Your task to perform on an android device: Toggle the flashlight Image 0: 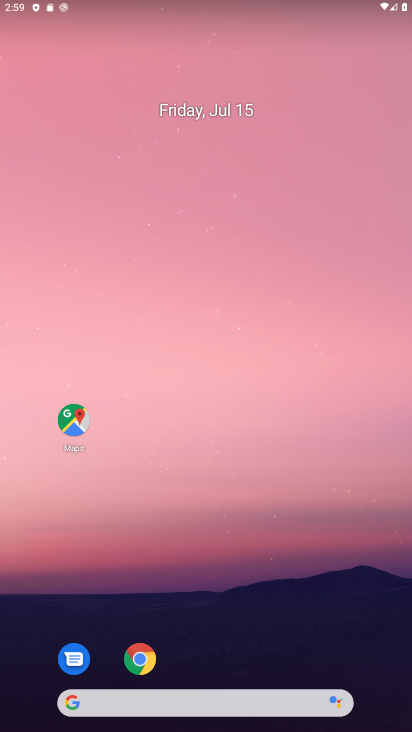
Step 0: drag from (201, 625) to (296, 139)
Your task to perform on an android device: Toggle the flashlight Image 1: 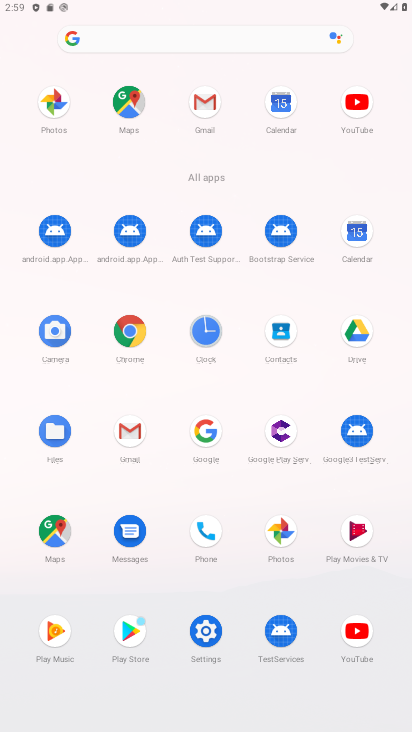
Step 1: drag from (228, 624) to (253, 172)
Your task to perform on an android device: Toggle the flashlight Image 2: 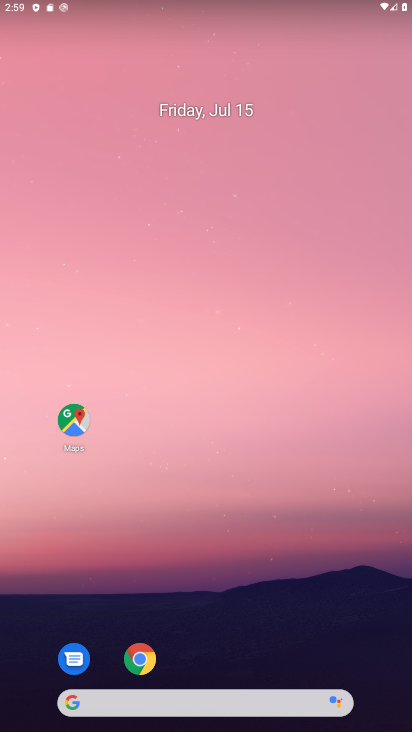
Step 2: click (209, 630)
Your task to perform on an android device: Toggle the flashlight Image 3: 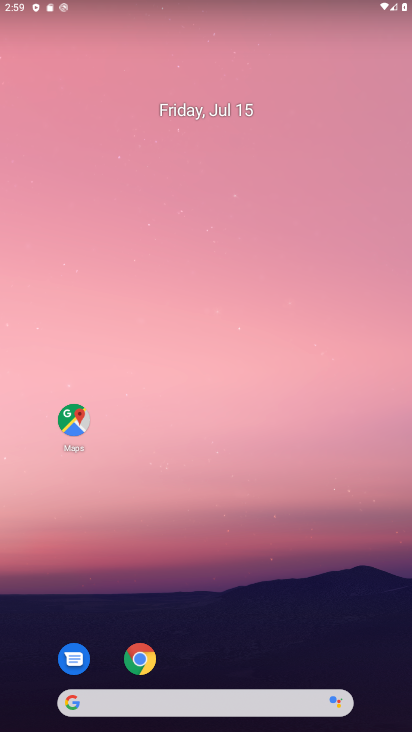
Step 3: click (232, 351)
Your task to perform on an android device: Toggle the flashlight Image 4: 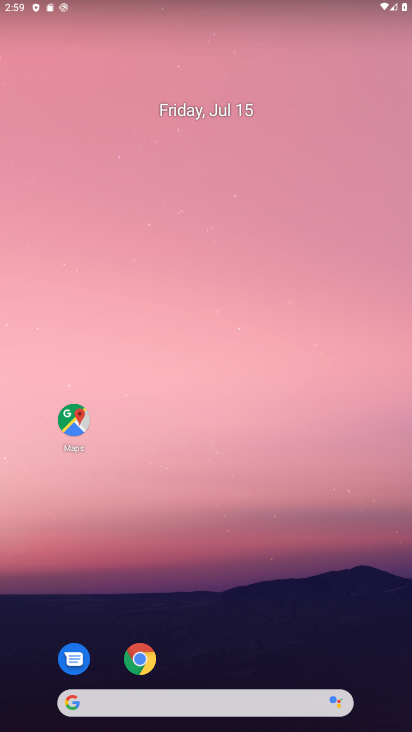
Step 4: click (299, 114)
Your task to perform on an android device: Toggle the flashlight Image 5: 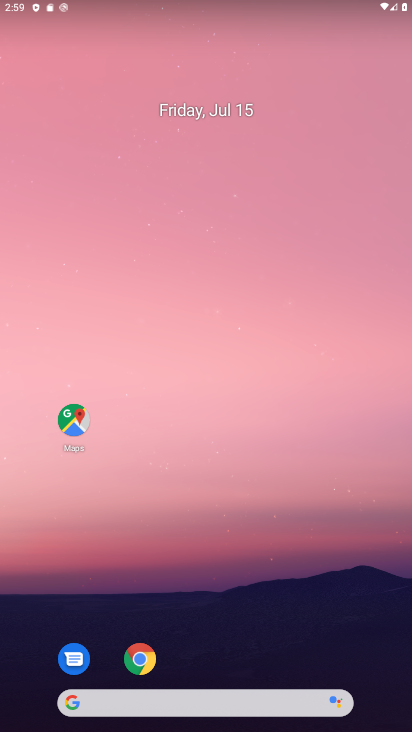
Step 5: click (232, 254)
Your task to perform on an android device: Toggle the flashlight Image 6: 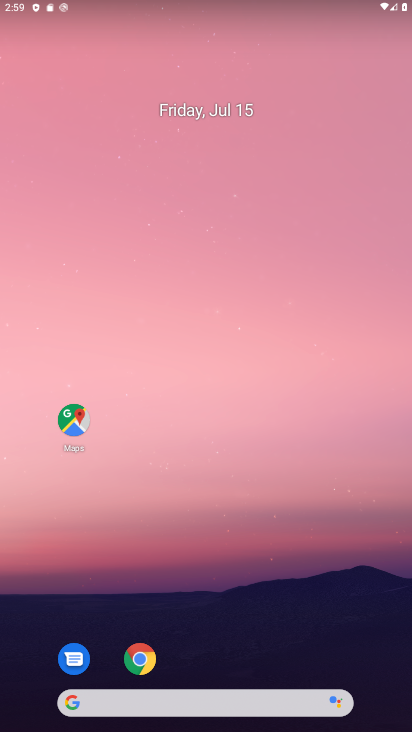
Step 6: drag from (222, 649) to (287, 295)
Your task to perform on an android device: Toggle the flashlight Image 7: 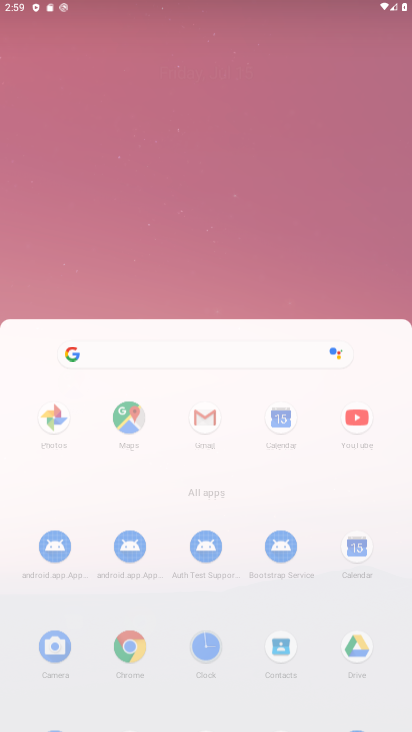
Step 7: click (245, 317)
Your task to perform on an android device: Toggle the flashlight Image 8: 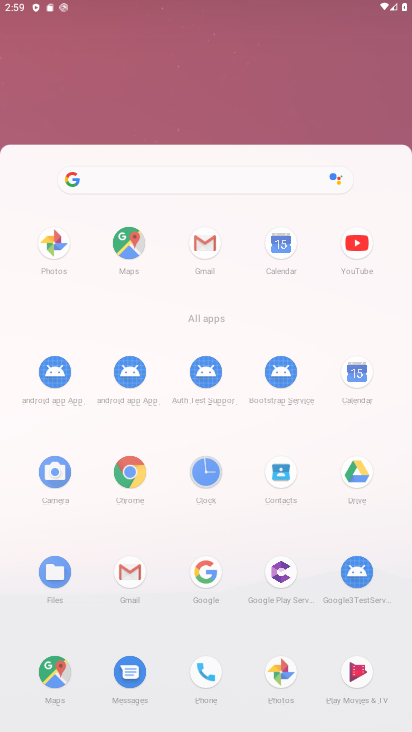
Step 8: press home button
Your task to perform on an android device: Toggle the flashlight Image 9: 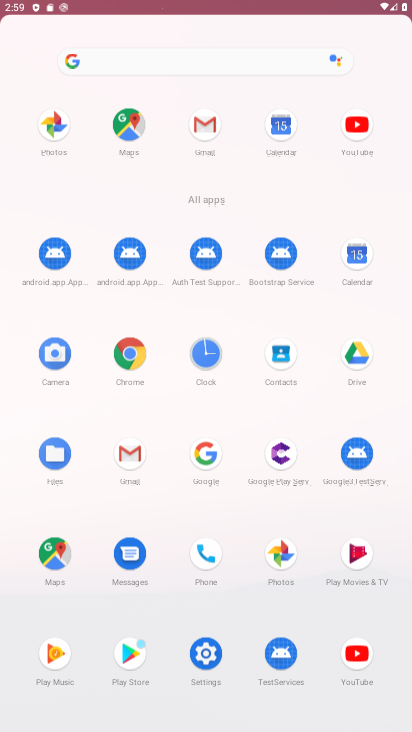
Step 9: click (359, 214)
Your task to perform on an android device: Toggle the flashlight Image 10: 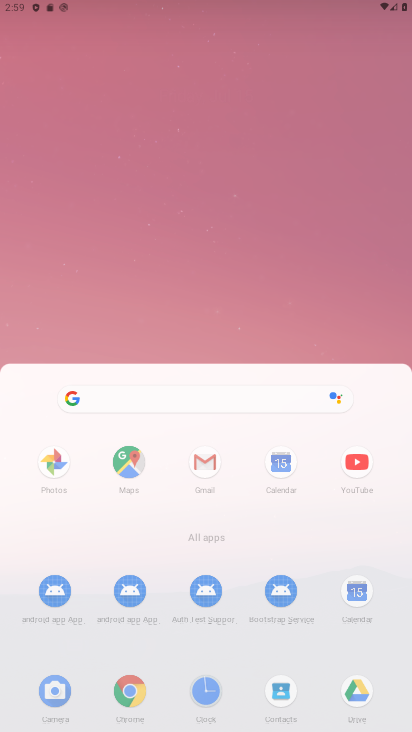
Step 10: drag from (231, 234) to (269, 178)
Your task to perform on an android device: Toggle the flashlight Image 11: 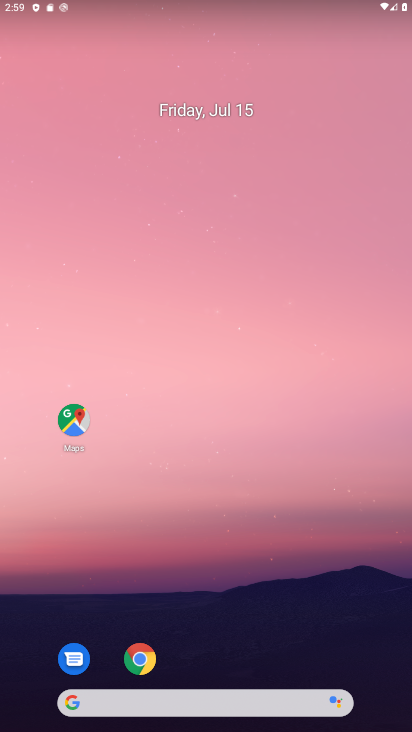
Step 11: drag from (188, 534) to (257, 144)
Your task to perform on an android device: Toggle the flashlight Image 12: 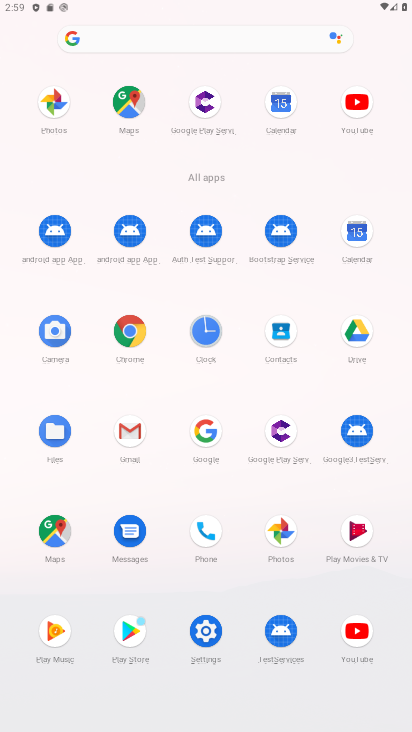
Step 12: click (187, 39)
Your task to perform on an android device: Toggle the flashlight Image 13: 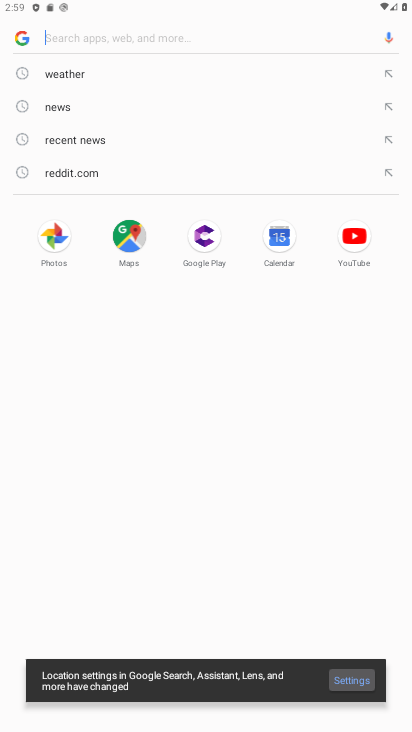
Step 13: press home button
Your task to perform on an android device: Toggle the flashlight Image 14: 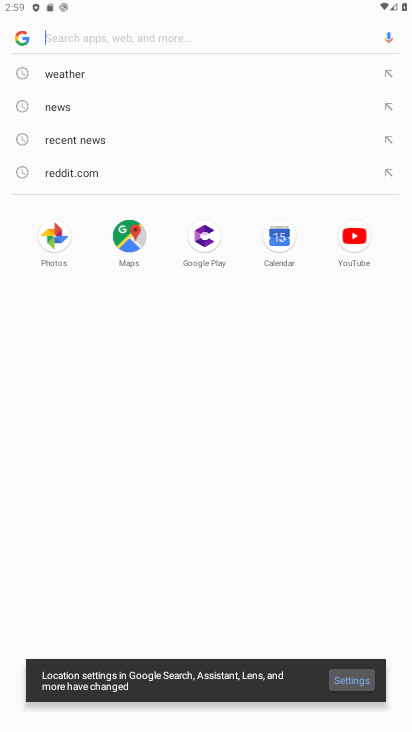
Step 14: press home button
Your task to perform on an android device: Toggle the flashlight Image 15: 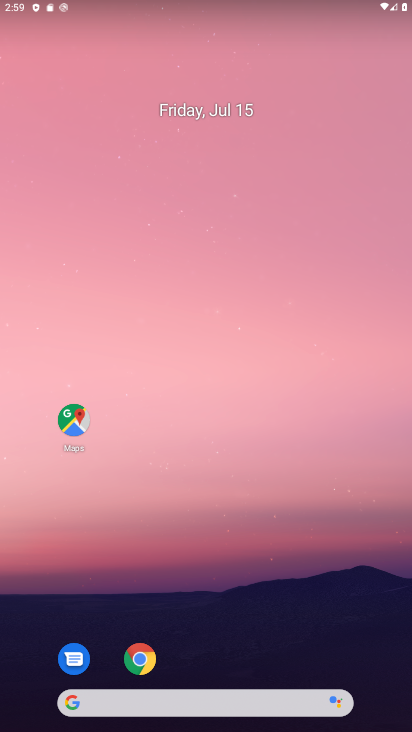
Step 15: drag from (254, 617) to (287, 178)
Your task to perform on an android device: Toggle the flashlight Image 16: 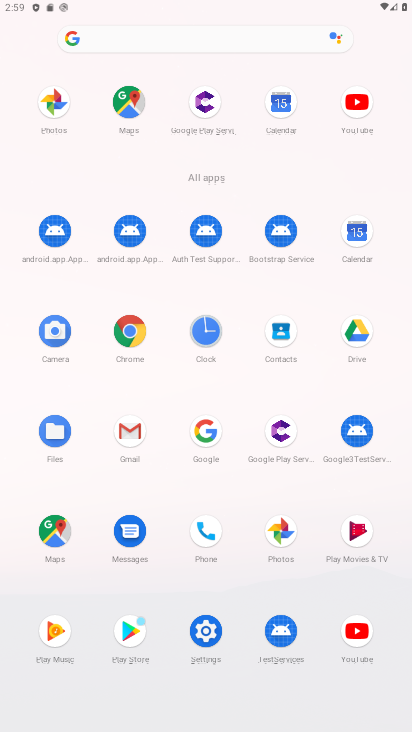
Step 16: click (207, 621)
Your task to perform on an android device: Toggle the flashlight Image 17: 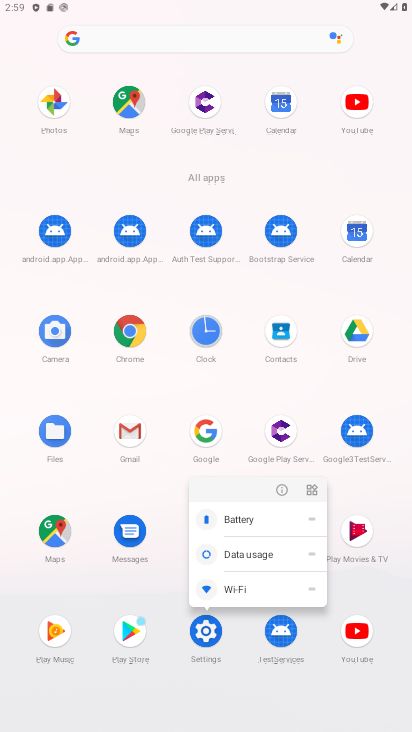
Step 17: click (277, 489)
Your task to perform on an android device: Toggle the flashlight Image 18: 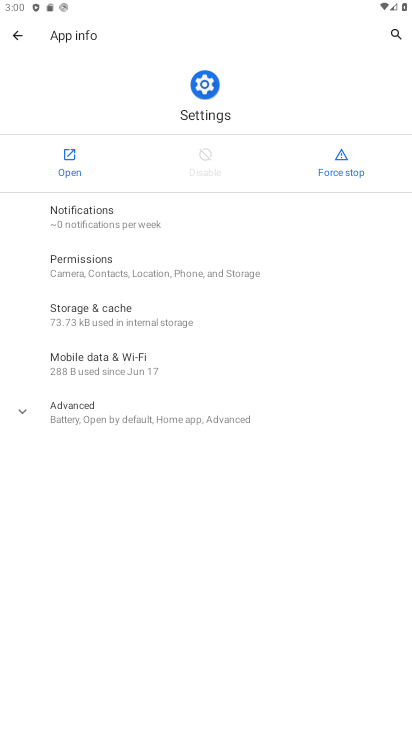
Step 18: click (70, 163)
Your task to perform on an android device: Toggle the flashlight Image 19: 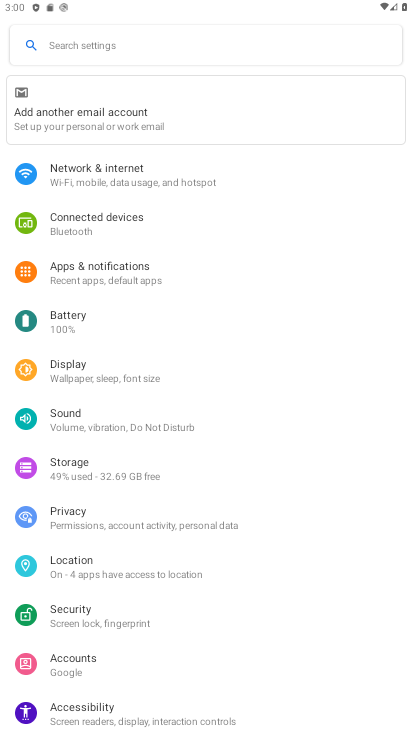
Step 19: click (151, 39)
Your task to perform on an android device: Toggle the flashlight Image 20: 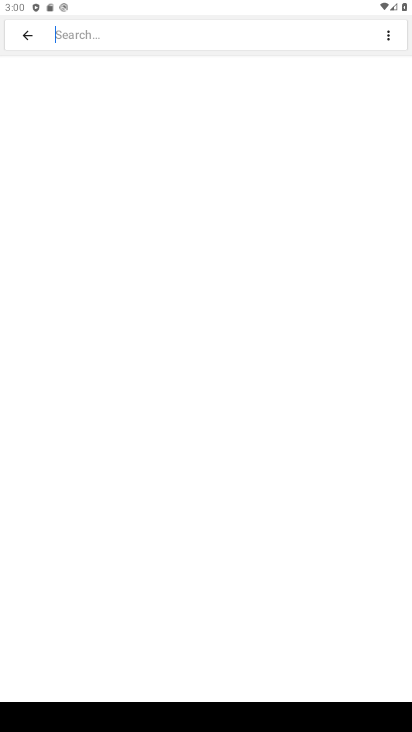
Step 20: type "flashlight"
Your task to perform on an android device: Toggle the flashlight Image 21: 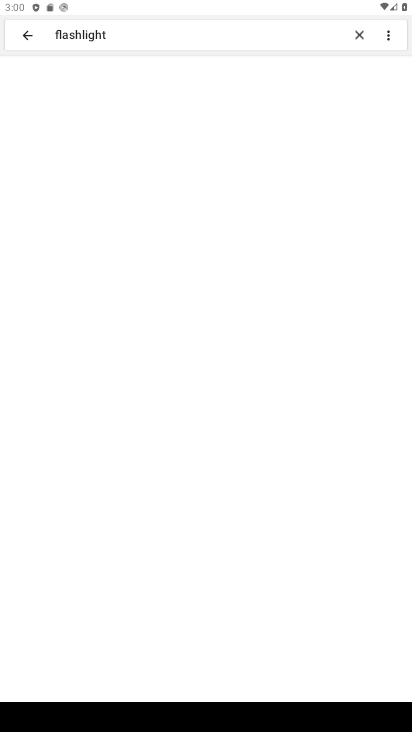
Step 21: click (147, 87)
Your task to perform on an android device: Toggle the flashlight Image 22: 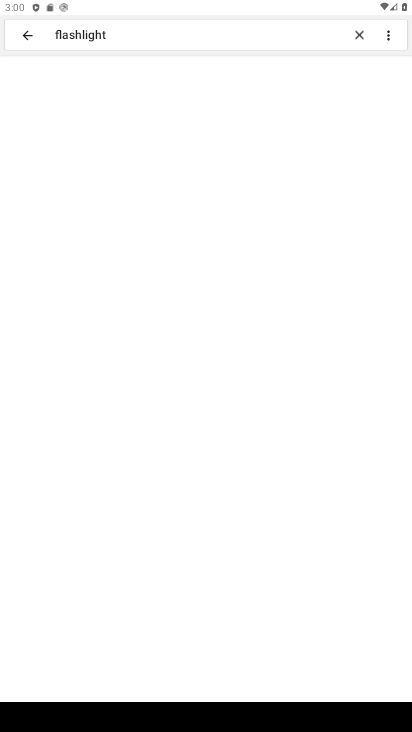
Step 22: click (147, 87)
Your task to perform on an android device: Toggle the flashlight Image 23: 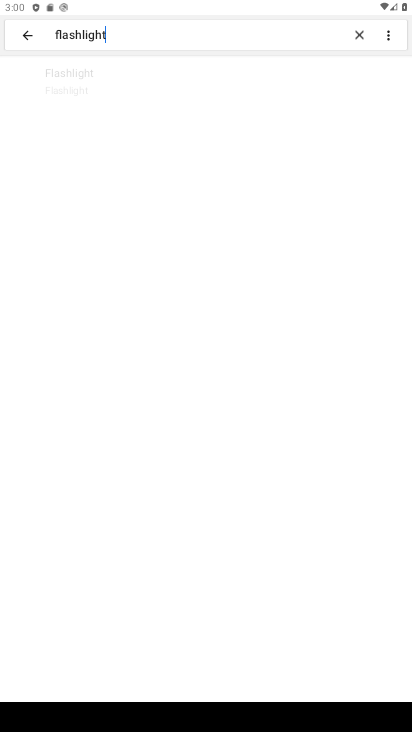
Step 23: click (151, 88)
Your task to perform on an android device: Toggle the flashlight Image 24: 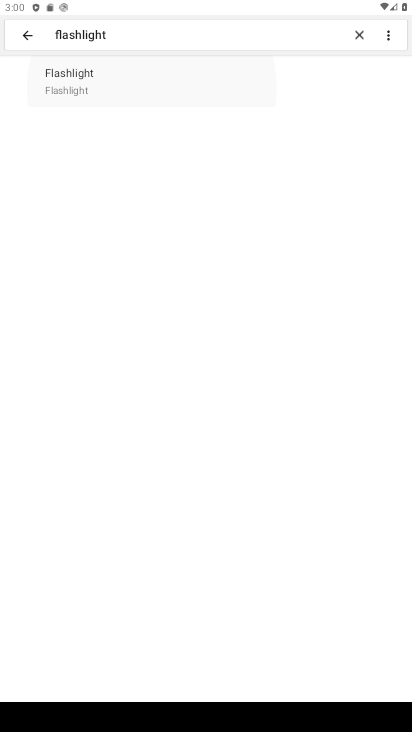
Step 24: click (151, 88)
Your task to perform on an android device: Toggle the flashlight Image 25: 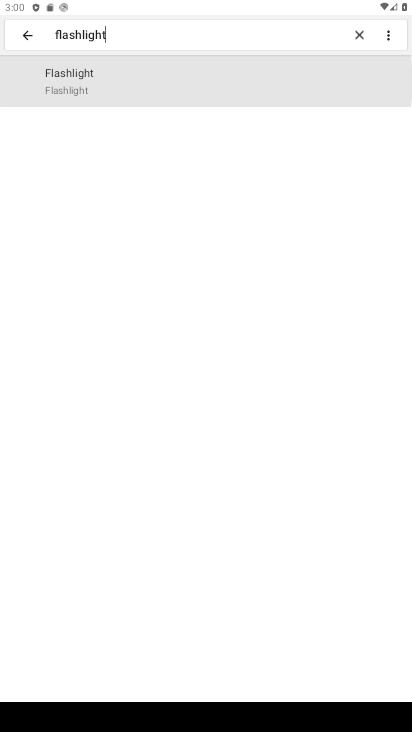
Step 25: click (151, 88)
Your task to perform on an android device: Toggle the flashlight Image 26: 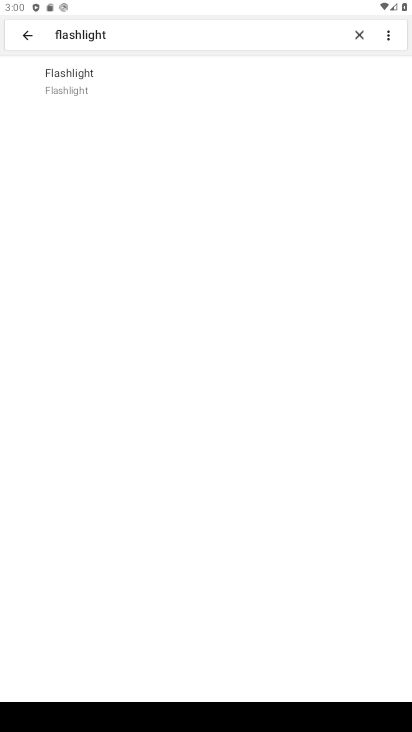
Step 26: task complete